Your task to perform on an android device: open app "Spotify: Music and Podcasts" Image 0: 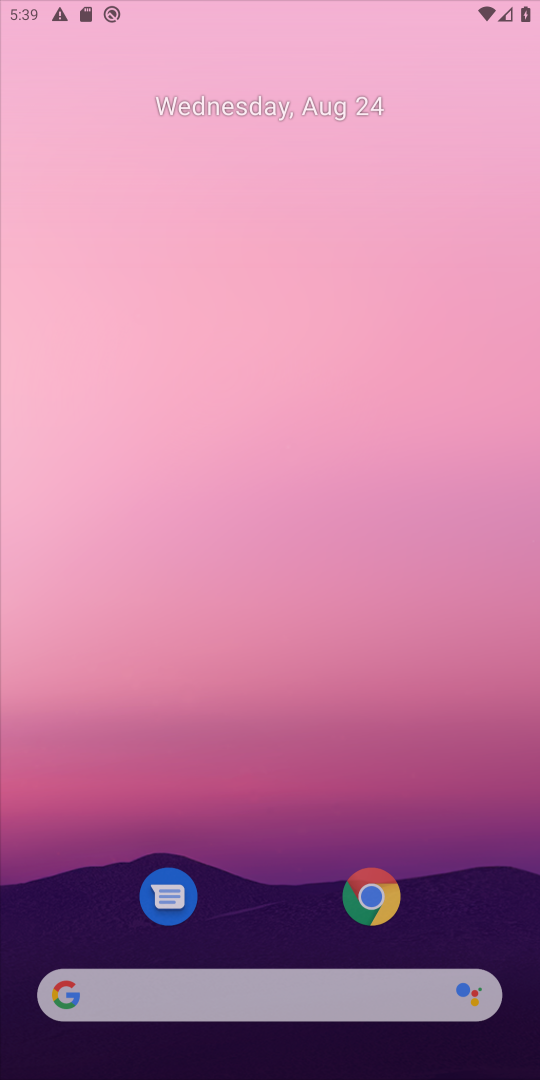
Step 0: drag from (257, 1012) to (168, 130)
Your task to perform on an android device: open app "Spotify: Music and Podcasts" Image 1: 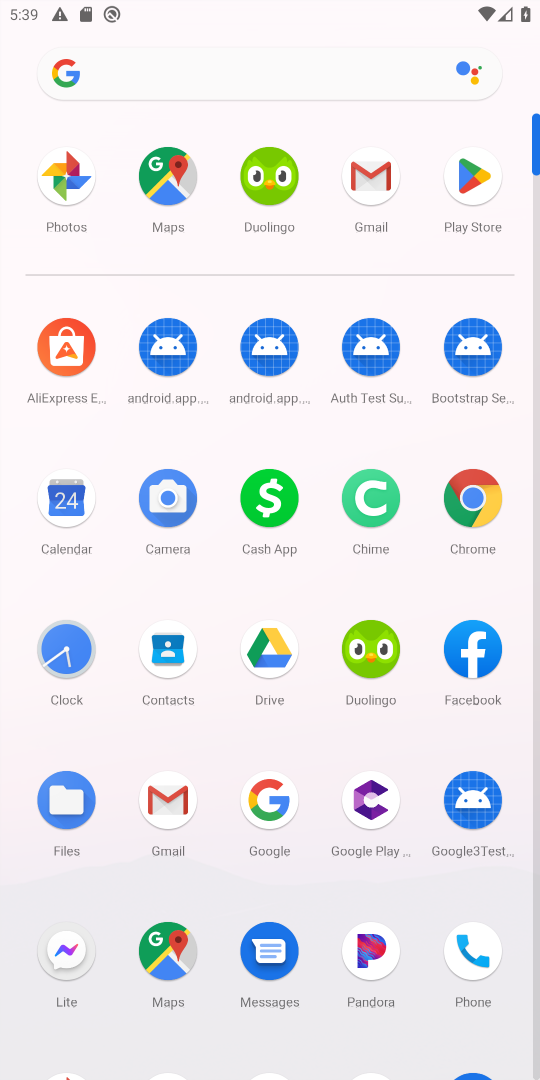
Step 1: click (460, 169)
Your task to perform on an android device: open app "Spotify: Music and Podcasts" Image 2: 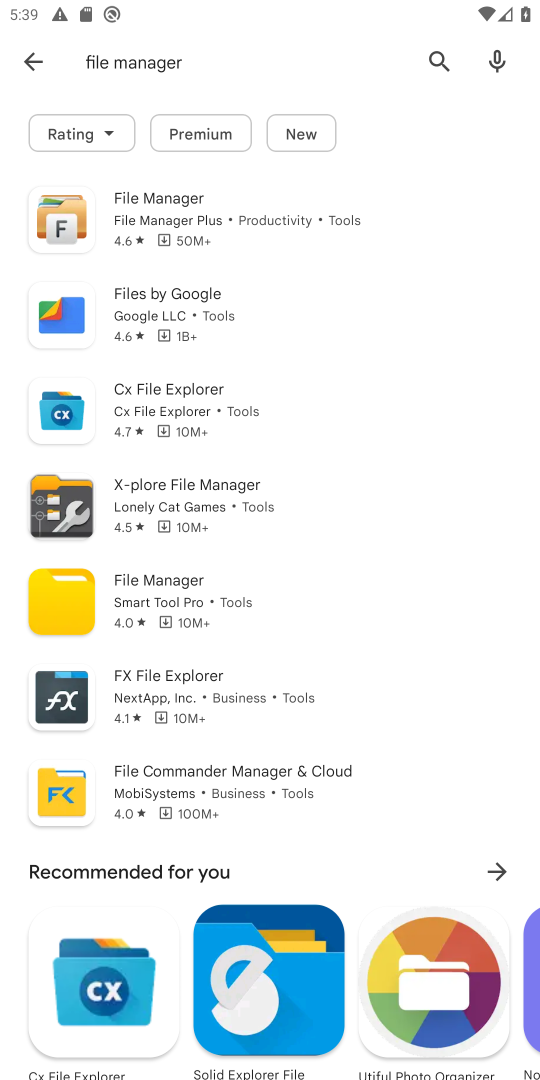
Step 2: click (452, 63)
Your task to perform on an android device: open app "Spotify: Music and Podcasts" Image 3: 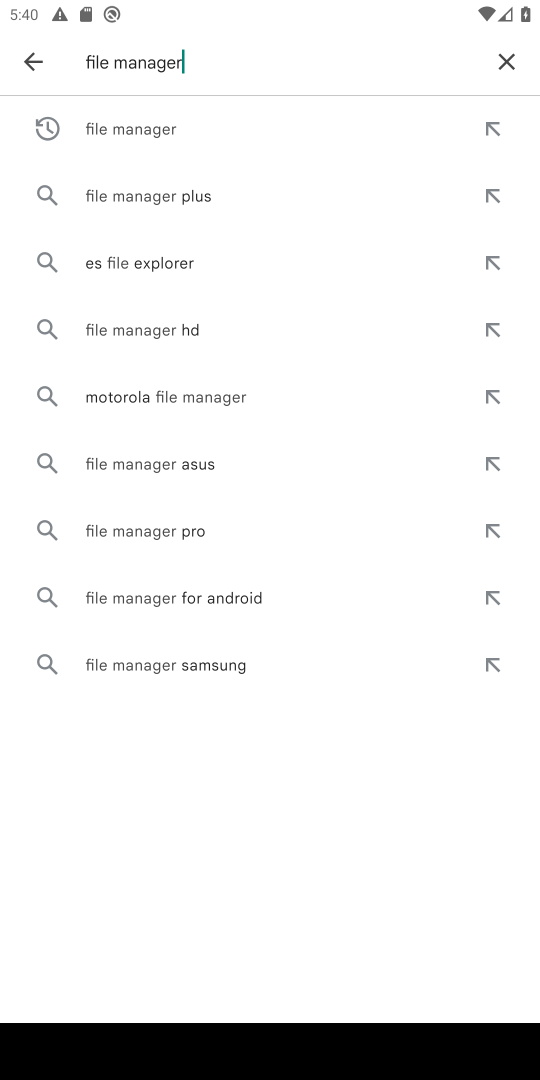
Step 3: click (506, 63)
Your task to perform on an android device: open app "Spotify: Music and Podcasts" Image 4: 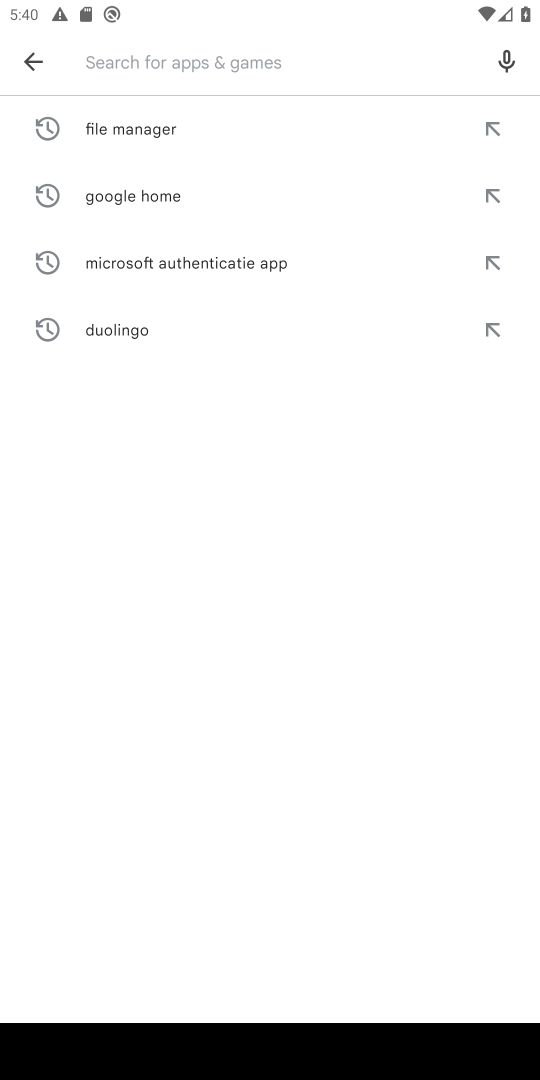
Step 4: type "spotify"
Your task to perform on an android device: open app "Spotify: Music and Podcasts" Image 5: 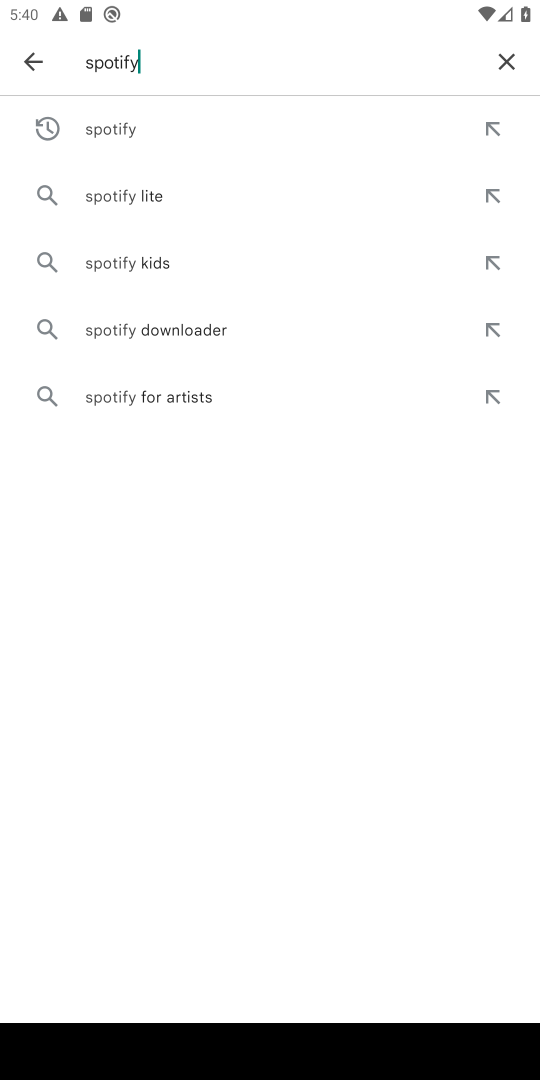
Step 5: click (168, 120)
Your task to perform on an android device: open app "Spotify: Music and Podcasts" Image 6: 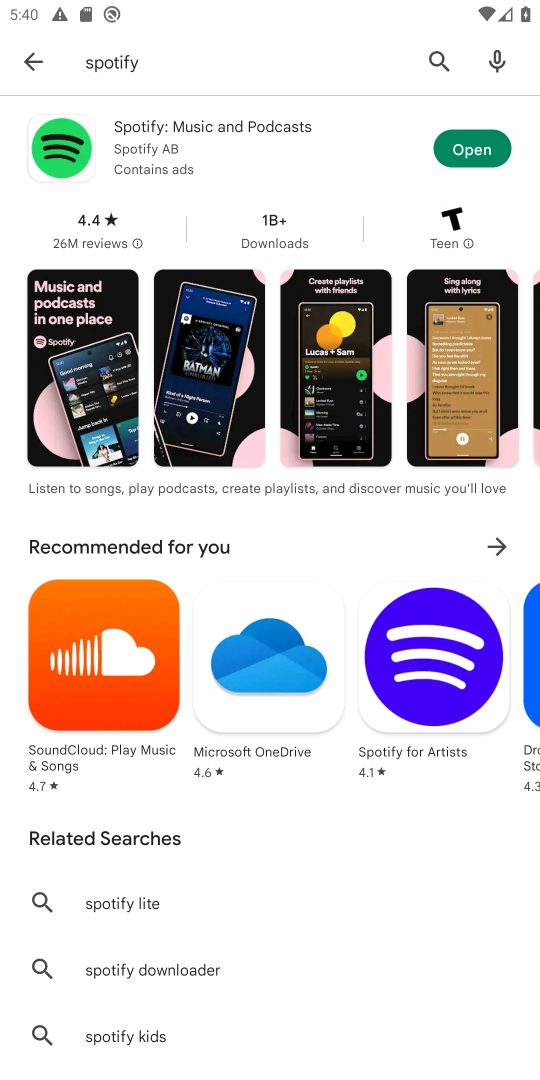
Step 6: click (448, 144)
Your task to perform on an android device: open app "Spotify: Music and Podcasts" Image 7: 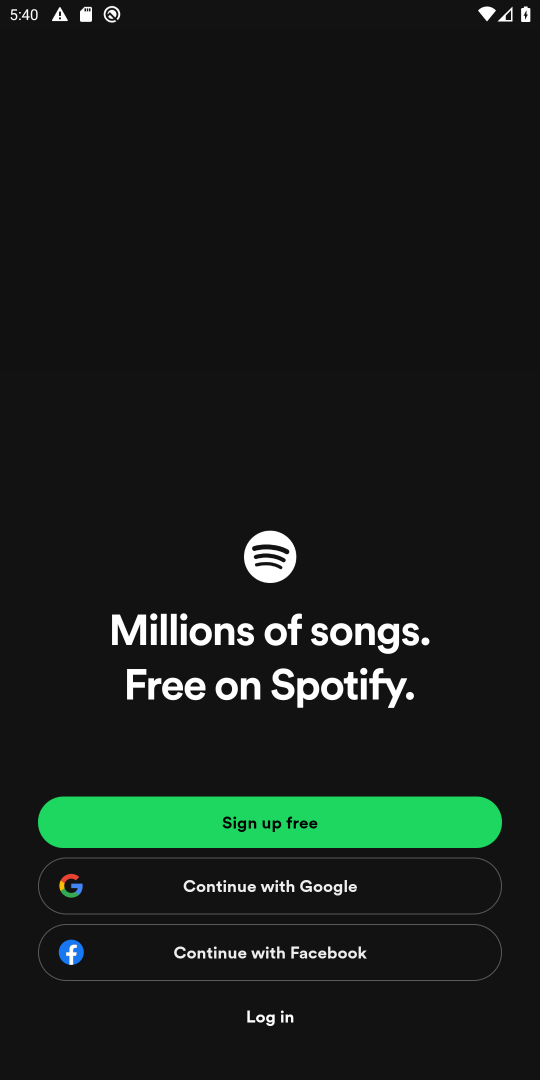
Step 7: task complete